Your task to perform on an android device: all mails in gmail Image 0: 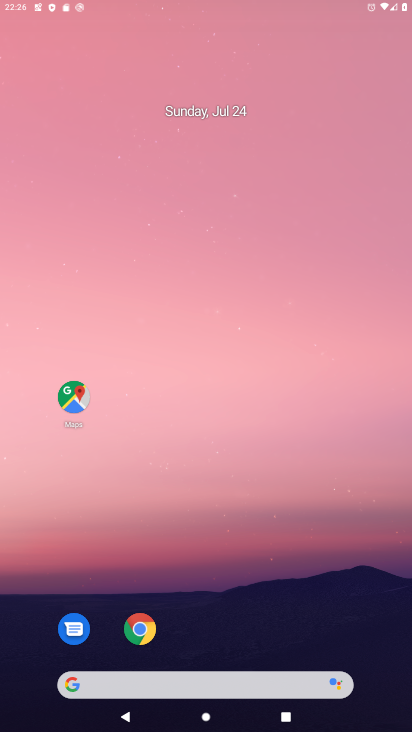
Step 0: drag from (183, 637) to (231, 124)
Your task to perform on an android device: all mails in gmail Image 1: 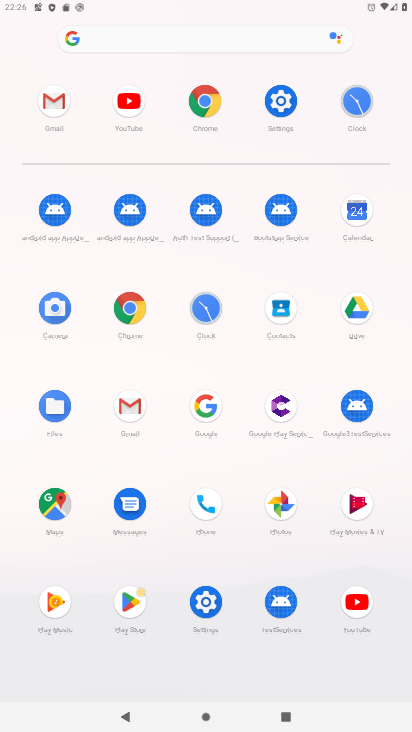
Step 1: click (118, 405)
Your task to perform on an android device: all mails in gmail Image 2: 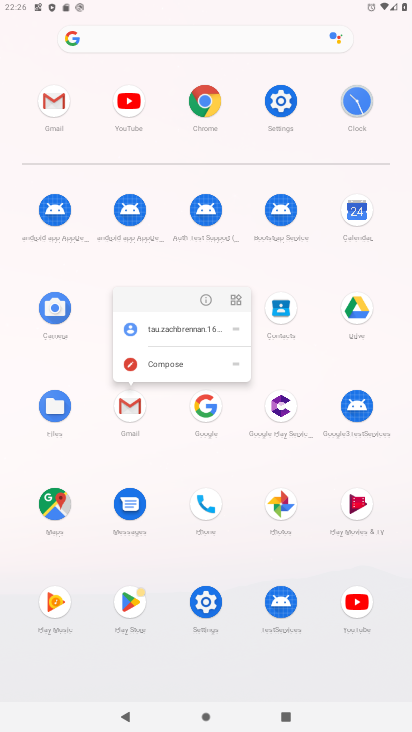
Step 2: click (206, 305)
Your task to perform on an android device: all mails in gmail Image 3: 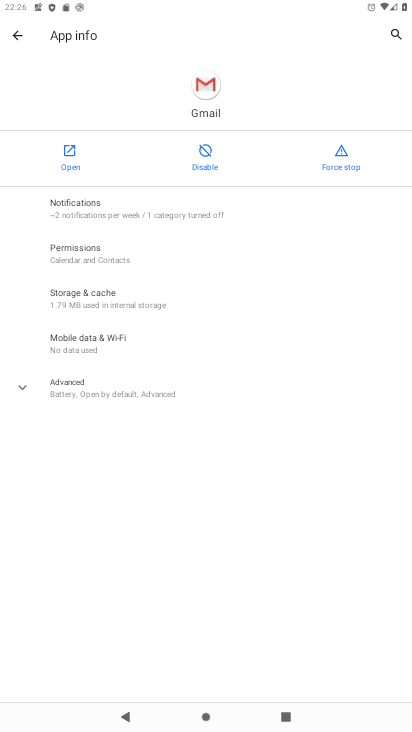
Step 3: click (74, 154)
Your task to perform on an android device: all mails in gmail Image 4: 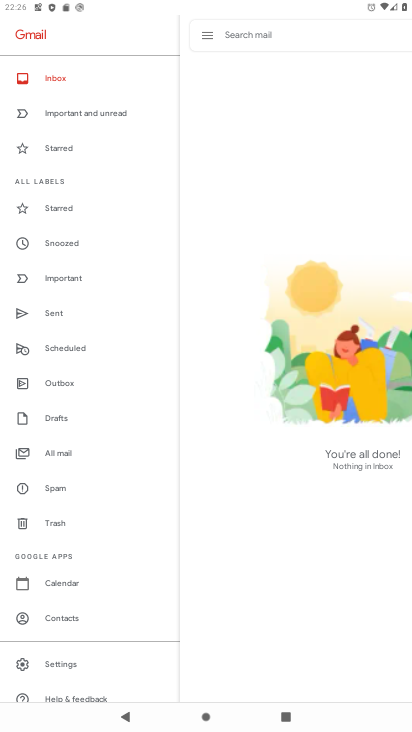
Step 4: click (73, 448)
Your task to perform on an android device: all mails in gmail Image 5: 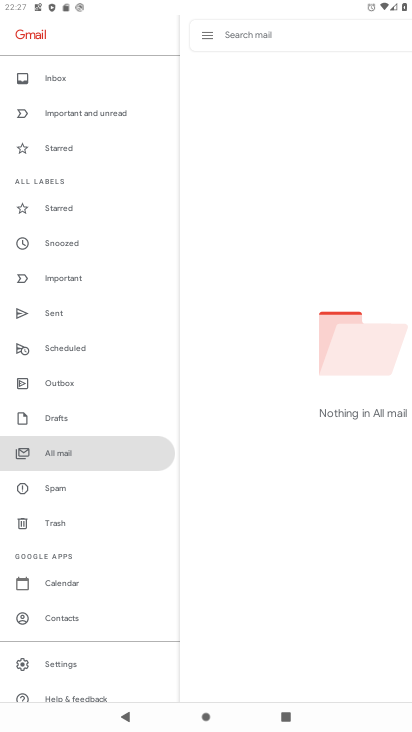
Step 5: drag from (312, 474) to (323, 302)
Your task to perform on an android device: all mails in gmail Image 6: 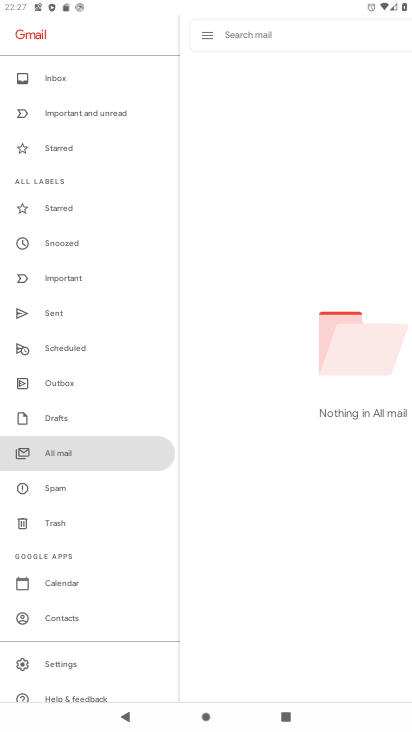
Step 6: click (68, 454)
Your task to perform on an android device: all mails in gmail Image 7: 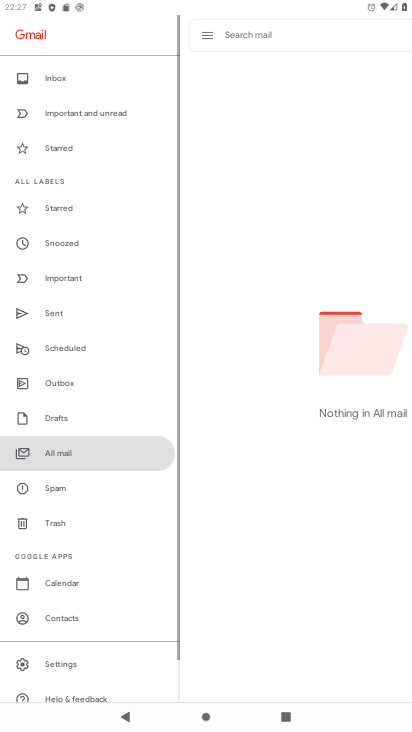
Step 7: task complete